Your task to perform on an android device: turn pop-ups off in chrome Image 0: 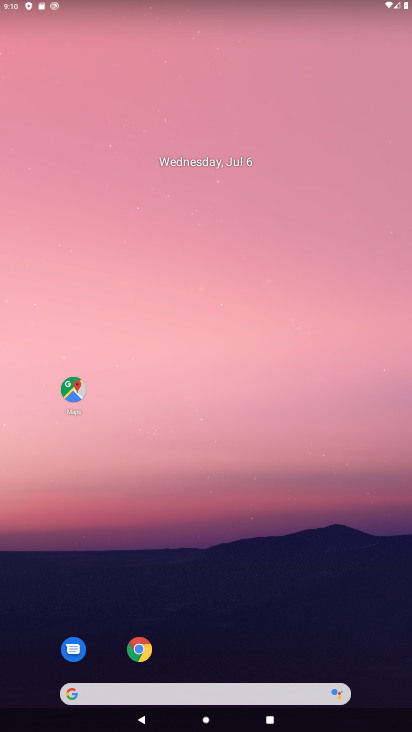
Step 0: press home button
Your task to perform on an android device: turn pop-ups off in chrome Image 1: 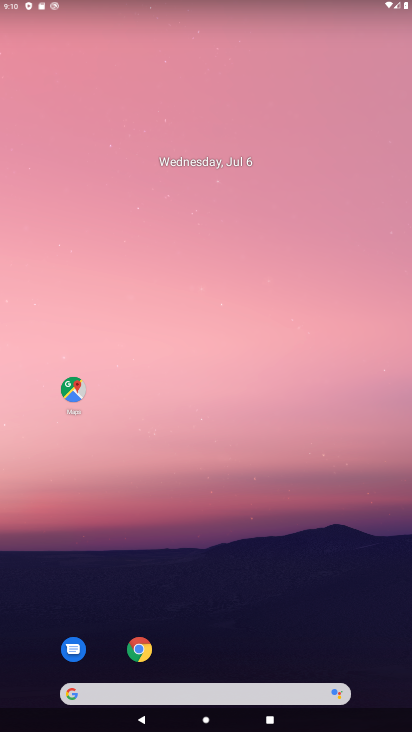
Step 1: drag from (209, 648) to (219, 60)
Your task to perform on an android device: turn pop-ups off in chrome Image 2: 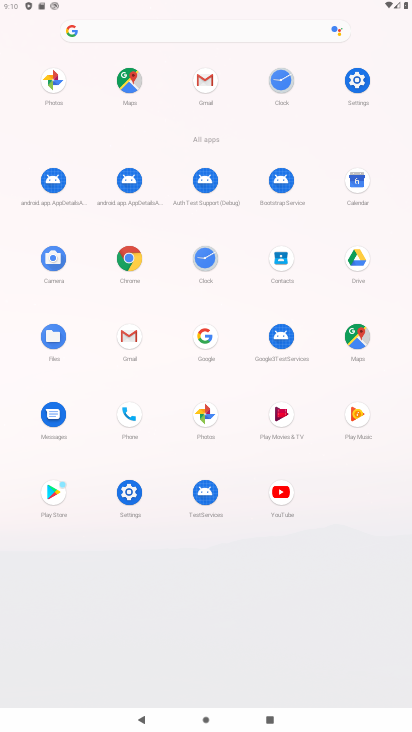
Step 2: click (126, 255)
Your task to perform on an android device: turn pop-ups off in chrome Image 3: 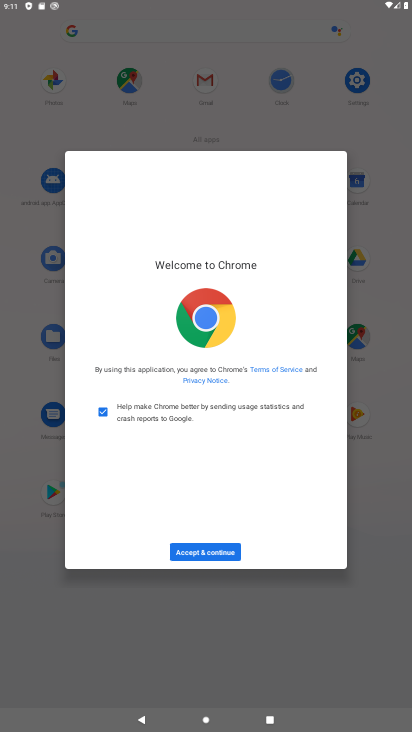
Step 3: click (202, 550)
Your task to perform on an android device: turn pop-ups off in chrome Image 4: 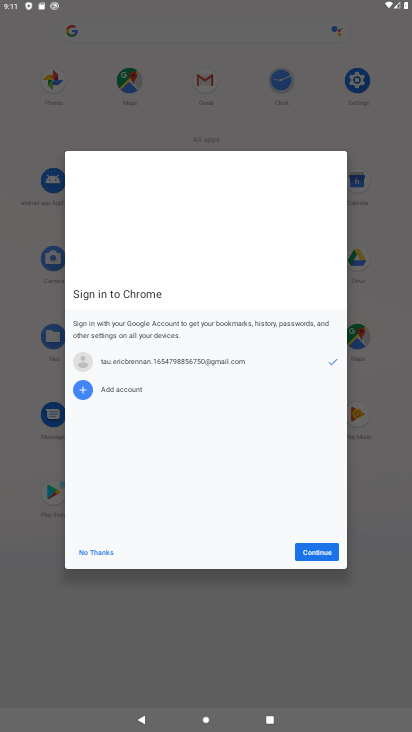
Step 4: click (317, 550)
Your task to perform on an android device: turn pop-ups off in chrome Image 5: 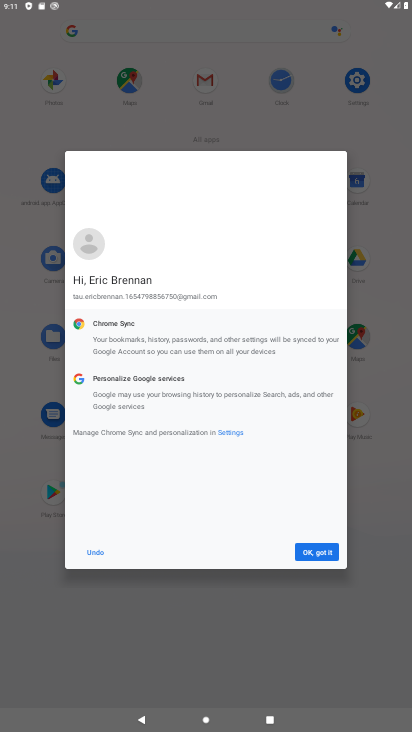
Step 5: click (316, 551)
Your task to perform on an android device: turn pop-ups off in chrome Image 6: 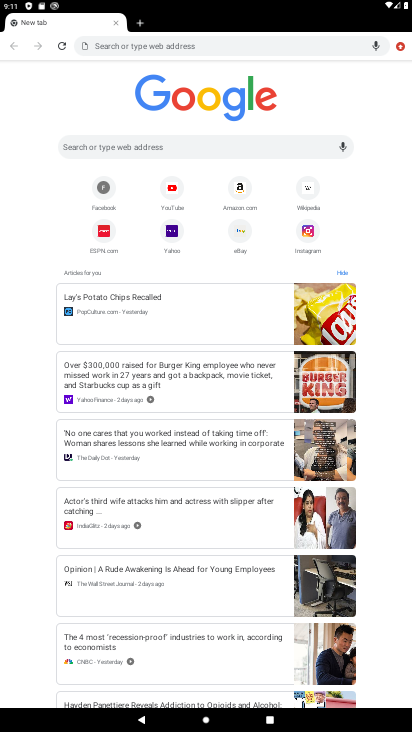
Step 6: click (399, 44)
Your task to perform on an android device: turn pop-ups off in chrome Image 7: 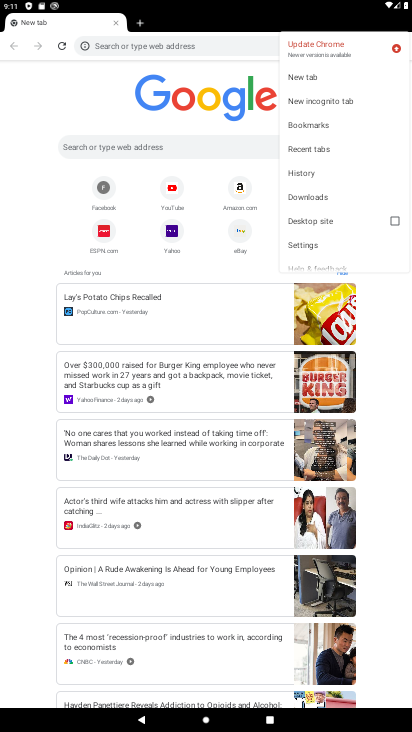
Step 7: click (314, 244)
Your task to perform on an android device: turn pop-ups off in chrome Image 8: 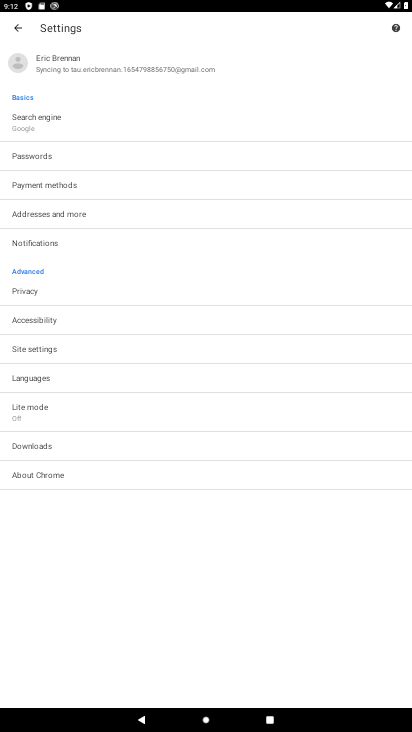
Step 8: click (63, 348)
Your task to perform on an android device: turn pop-ups off in chrome Image 9: 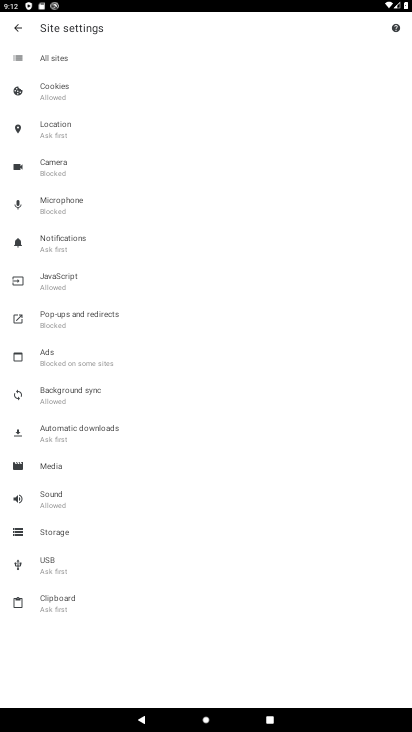
Step 9: click (88, 314)
Your task to perform on an android device: turn pop-ups off in chrome Image 10: 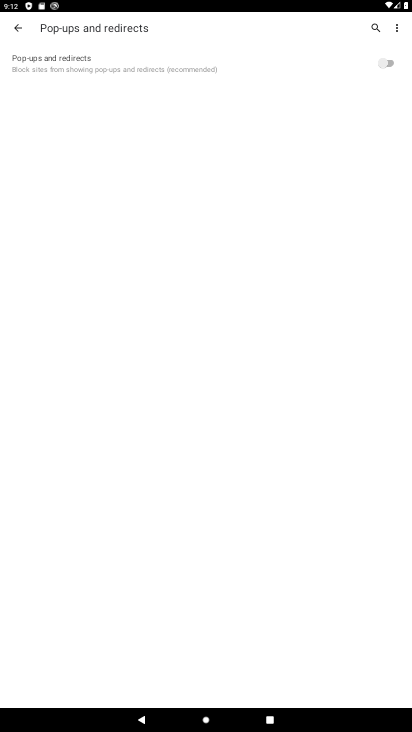
Step 10: task complete